Your task to perform on an android device: toggle location history Image 0: 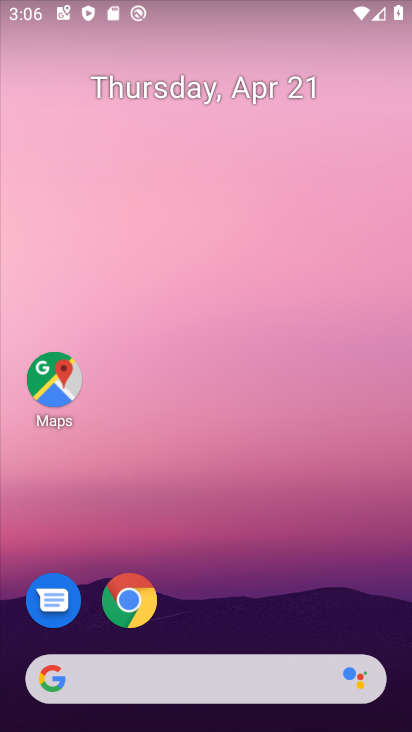
Step 0: drag from (224, 580) to (317, 10)
Your task to perform on an android device: toggle location history Image 1: 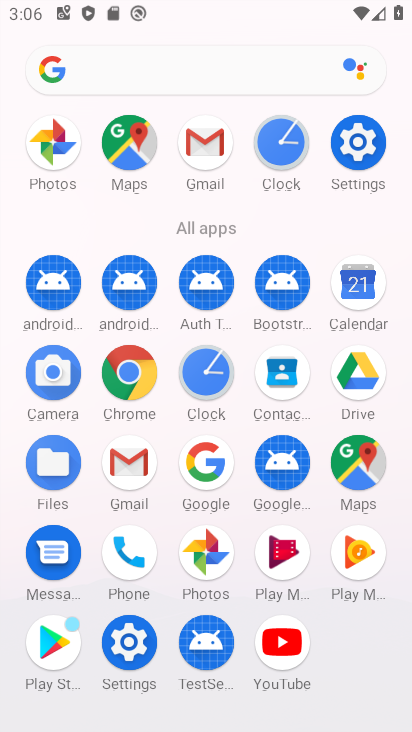
Step 1: click (362, 140)
Your task to perform on an android device: toggle location history Image 2: 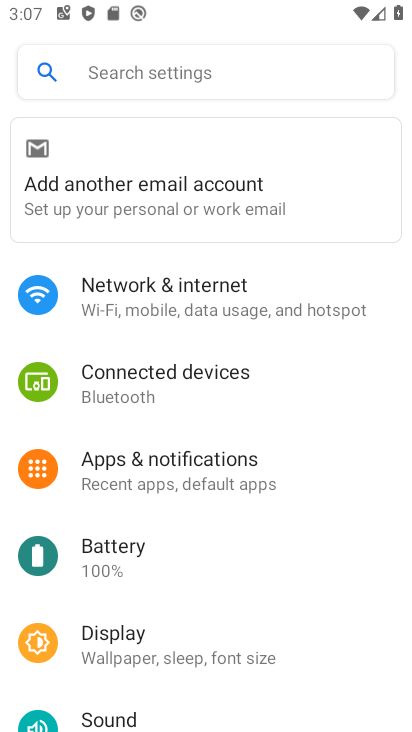
Step 2: drag from (242, 414) to (316, 292)
Your task to perform on an android device: toggle location history Image 3: 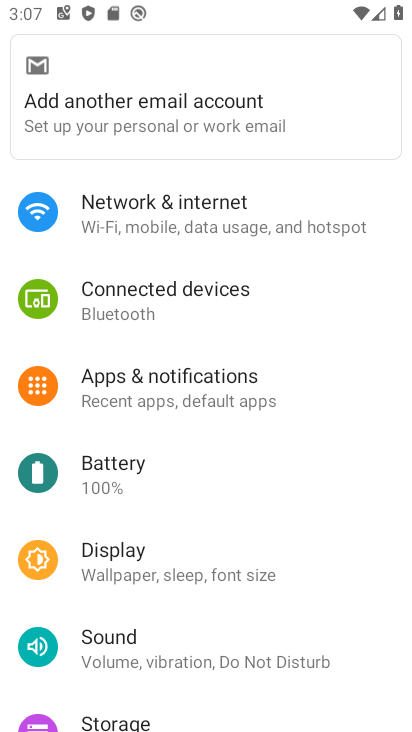
Step 3: drag from (220, 429) to (278, 342)
Your task to perform on an android device: toggle location history Image 4: 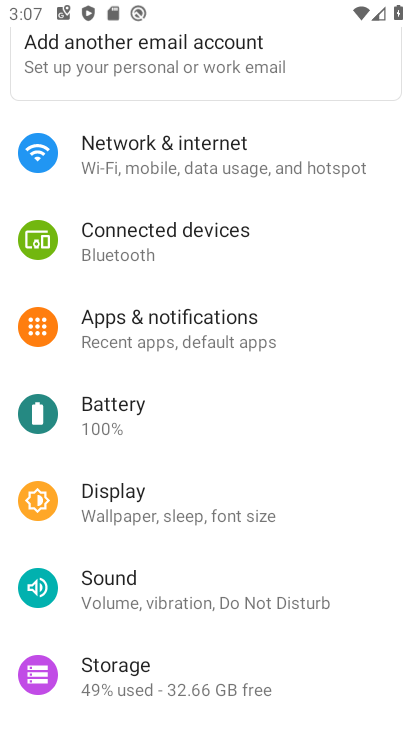
Step 4: drag from (219, 446) to (271, 346)
Your task to perform on an android device: toggle location history Image 5: 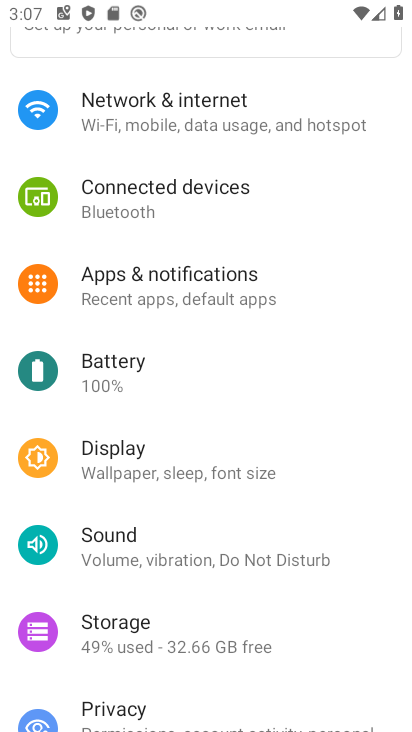
Step 5: drag from (192, 516) to (282, 401)
Your task to perform on an android device: toggle location history Image 6: 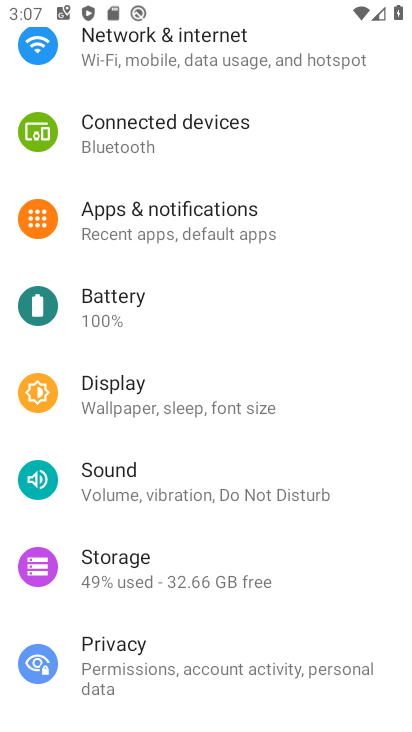
Step 6: drag from (220, 534) to (329, 384)
Your task to perform on an android device: toggle location history Image 7: 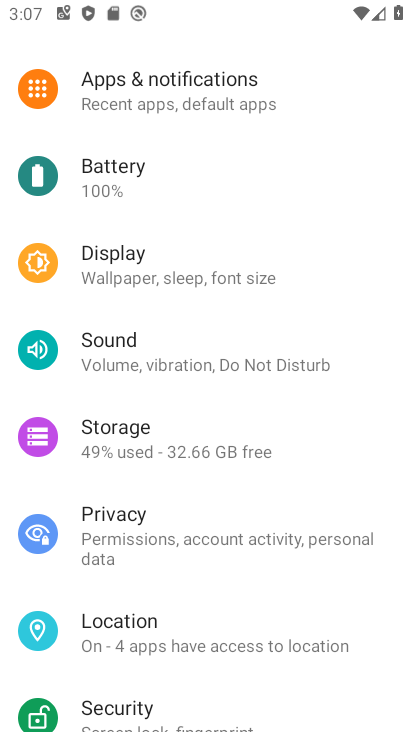
Step 7: click (135, 640)
Your task to perform on an android device: toggle location history Image 8: 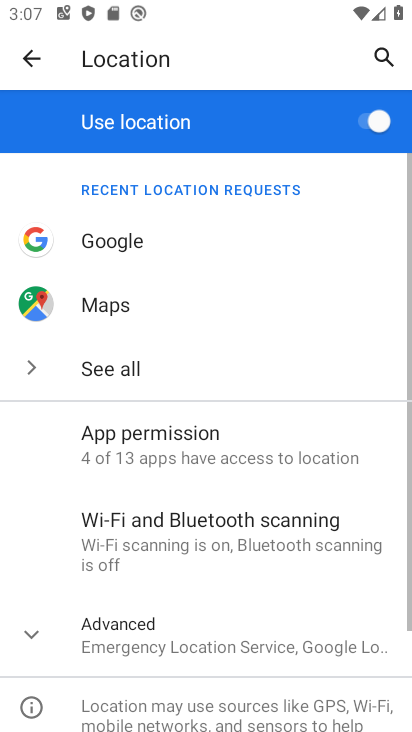
Step 8: click (158, 637)
Your task to perform on an android device: toggle location history Image 9: 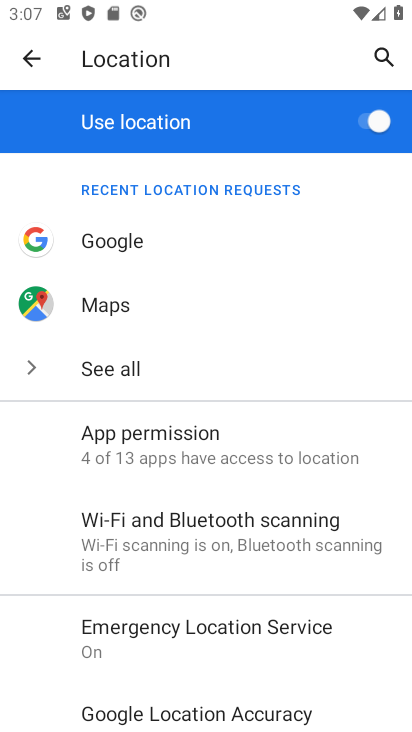
Step 9: drag from (163, 665) to (285, 363)
Your task to perform on an android device: toggle location history Image 10: 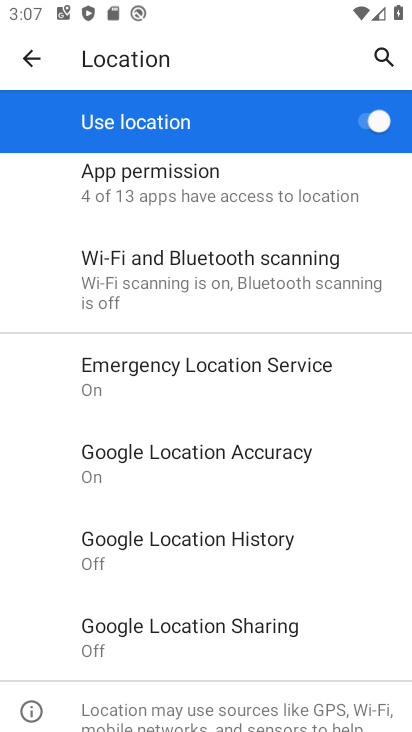
Step 10: click (209, 541)
Your task to perform on an android device: toggle location history Image 11: 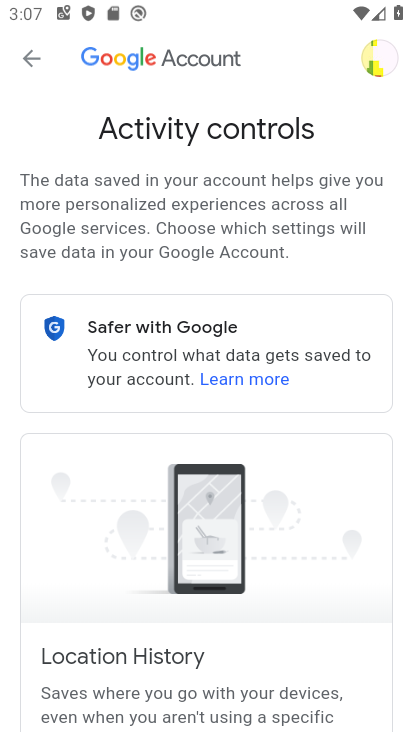
Step 11: drag from (252, 567) to (341, 364)
Your task to perform on an android device: toggle location history Image 12: 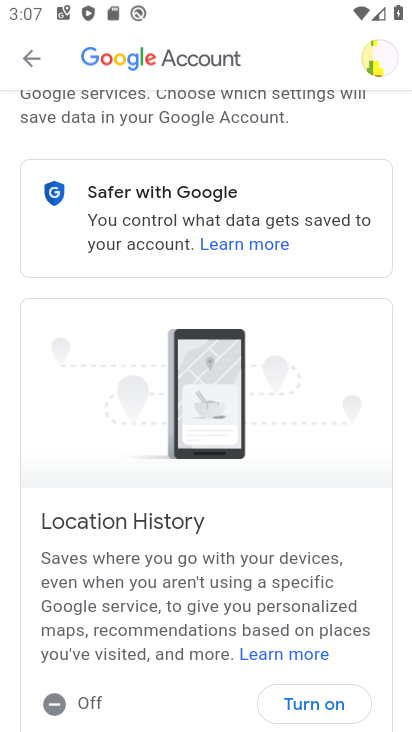
Step 12: click (311, 704)
Your task to perform on an android device: toggle location history Image 13: 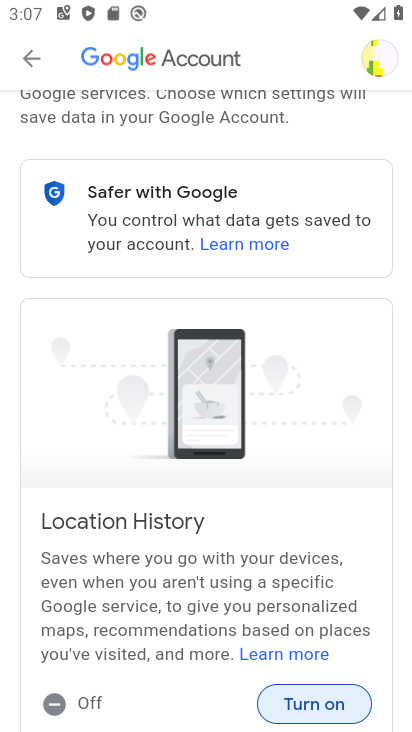
Step 13: click (311, 704)
Your task to perform on an android device: toggle location history Image 14: 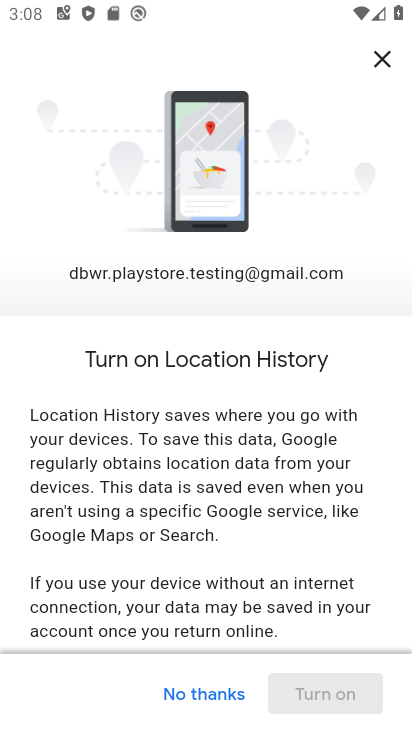
Step 14: task complete